Your task to perform on an android device: View the shopping cart on costco.com. Add sony triple a to the cart on costco.com Image 0: 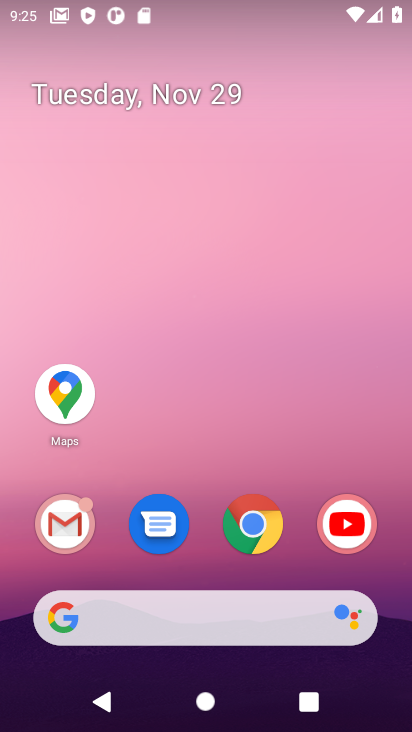
Step 0: click (247, 523)
Your task to perform on an android device: View the shopping cart on costco.com. Add sony triple a to the cart on costco.com Image 1: 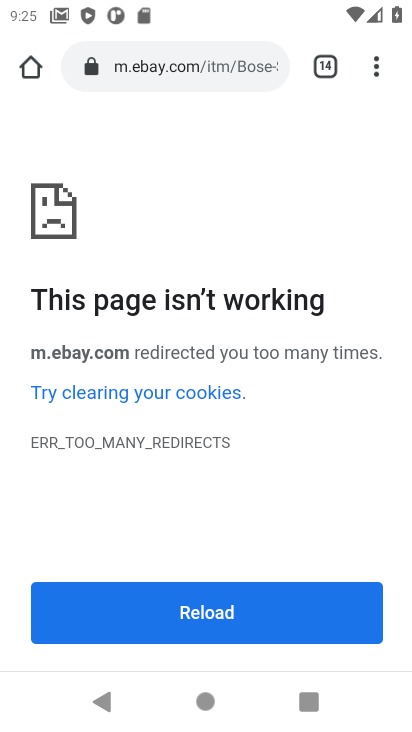
Step 1: click (168, 69)
Your task to perform on an android device: View the shopping cart on costco.com. Add sony triple a to the cart on costco.com Image 2: 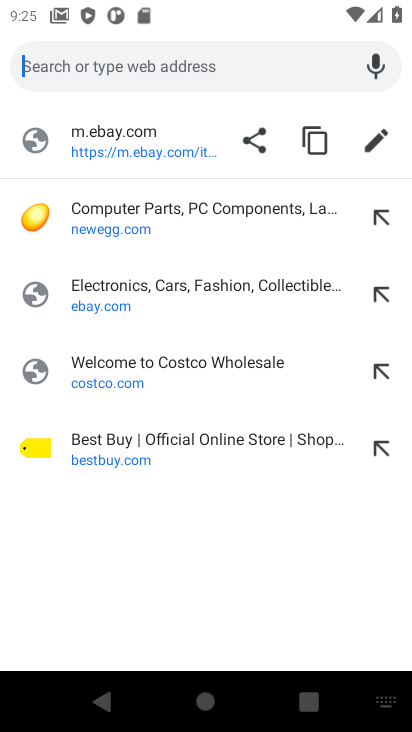
Step 2: click (104, 362)
Your task to perform on an android device: View the shopping cart on costco.com. Add sony triple a to the cart on costco.com Image 3: 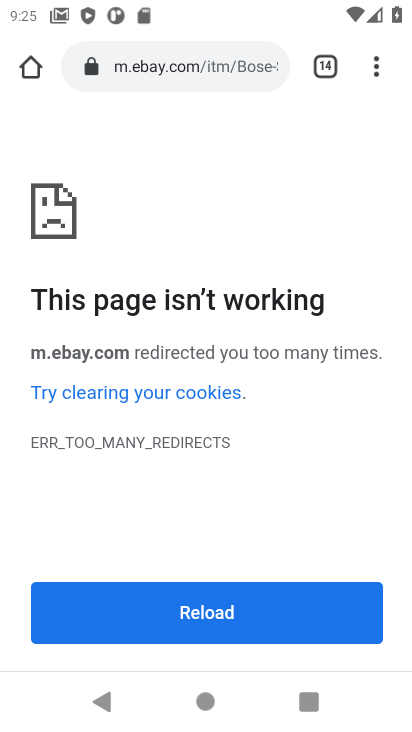
Step 3: click (181, 59)
Your task to perform on an android device: View the shopping cart on costco.com. Add sony triple a to the cart on costco.com Image 4: 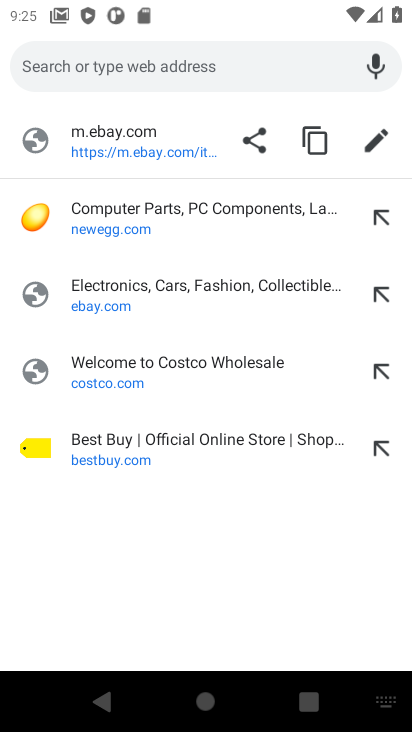
Step 4: click (88, 367)
Your task to perform on an android device: View the shopping cart on costco.com. Add sony triple a to the cart on costco.com Image 5: 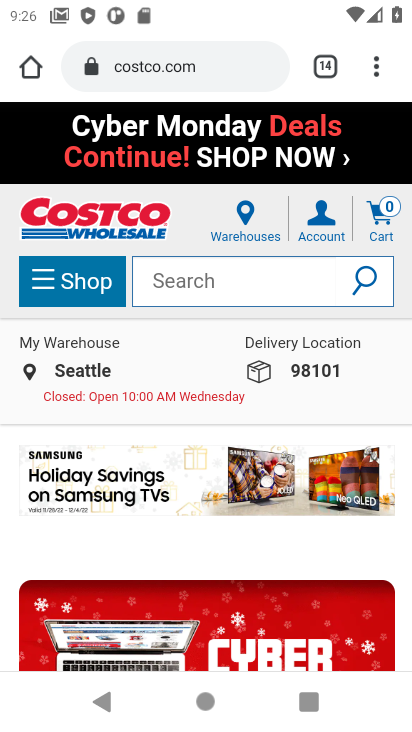
Step 5: click (379, 219)
Your task to perform on an android device: View the shopping cart on costco.com. Add sony triple a to the cart on costco.com Image 6: 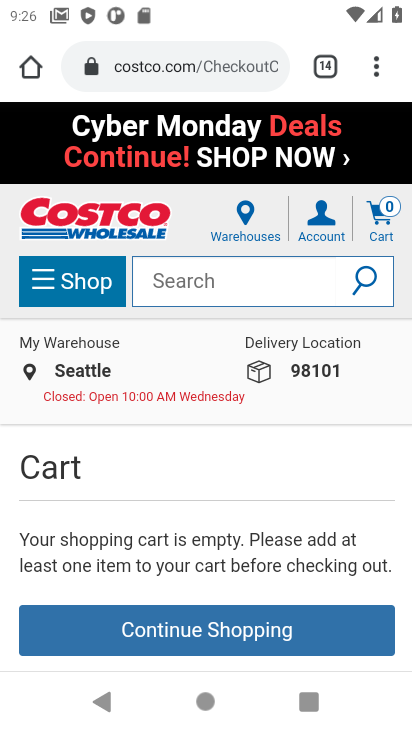
Step 6: click (184, 279)
Your task to perform on an android device: View the shopping cart on costco.com. Add sony triple a to the cart on costco.com Image 7: 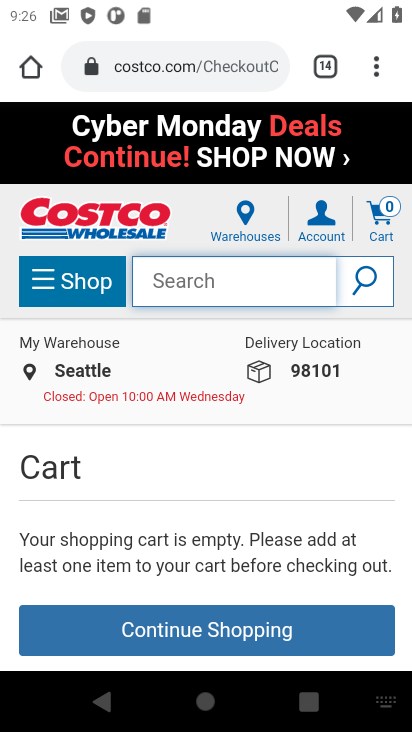
Step 7: type "sony triple a"
Your task to perform on an android device: View the shopping cart on costco.com. Add sony triple a to the cart on costco.com Image 8: 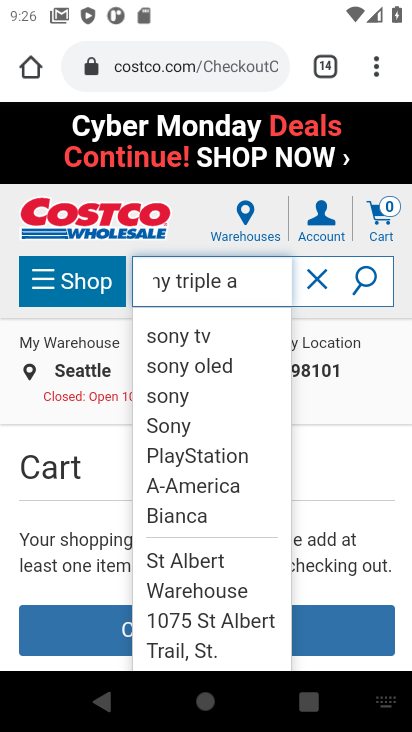
Step 8: click (363, 279)
Your task to perform on an android device: View the shopping cart on costco.com. Add sony triple a to the cart on costco.com Image 9: 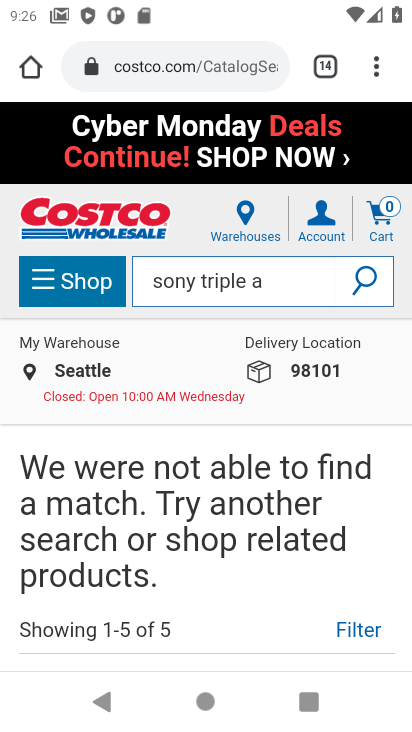
Step 9: task complete